Your task to perform on an android device: toggle notification dots Image 0: 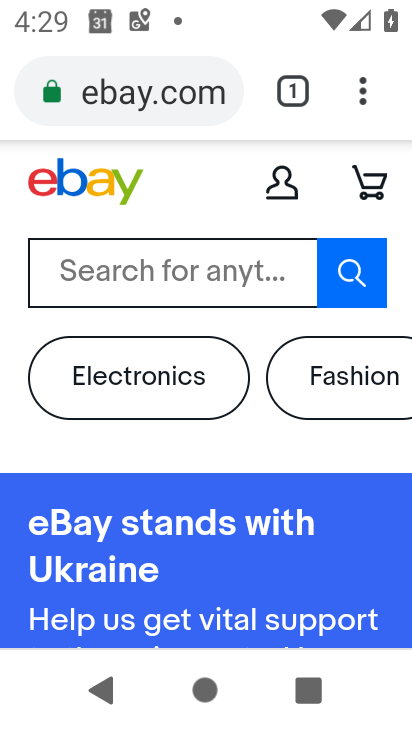
Step 0: press home button
Your task to perform on an android device: toggle notification dots Image 1: 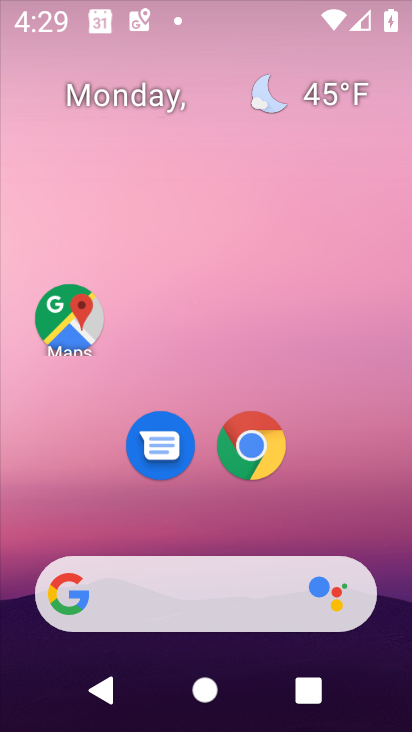
Step 1: drag from (192, 515) to (215, 75)
Your task to perform on an android device: toggle notification dots Image 2: 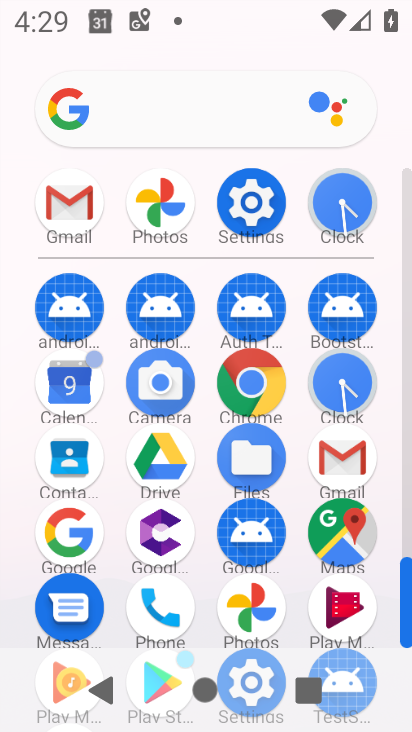
Step 2: click (246, 207)
Your task to perform on an android device: toggle notification dots Image 3: 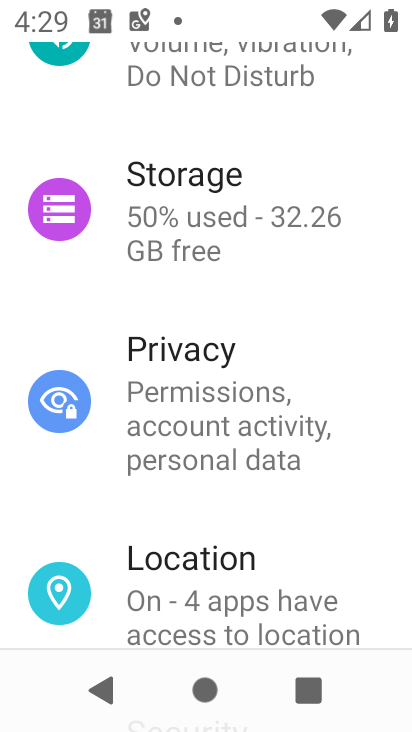
Step 3: drag from (185, 204) to (190, 575)
Your task to perform on an android device: toggle notification dots Image 4: 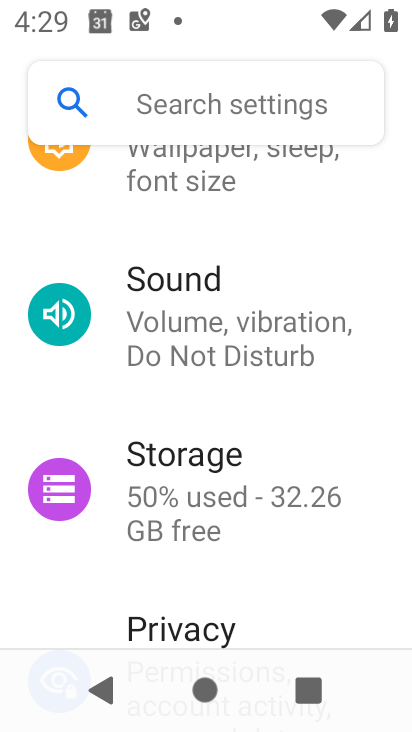
Step 4: drag from (210, 232) to (267, 551)
Your task to perform on an android device: toggle notification dots Image 5: 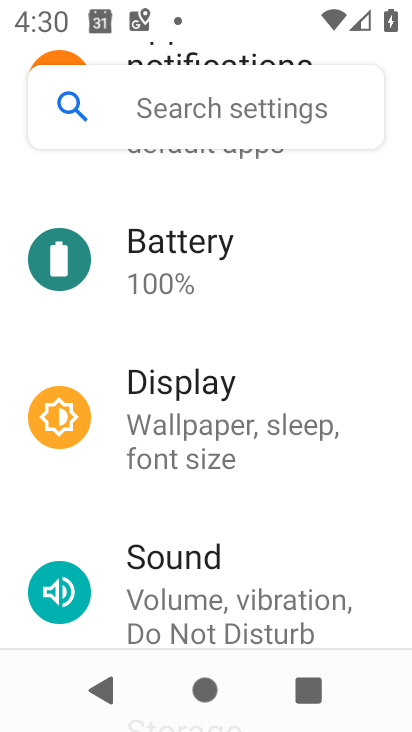
Step 5: drag from (286, 274) to (289, 599)
Your task to perform on an android device: toggle notification dots Image 6: 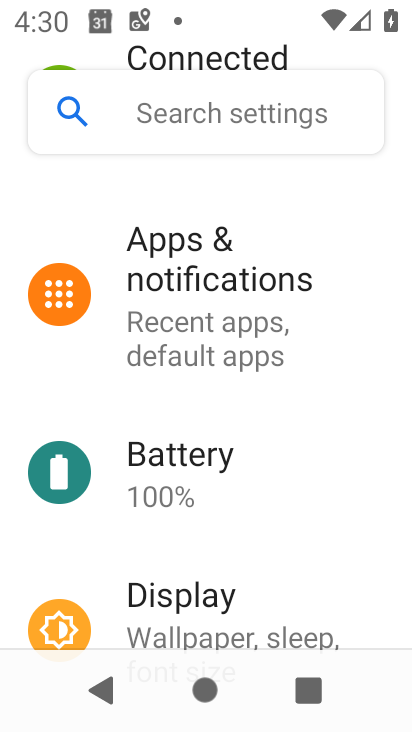
Step 6: click (248, 365)
Your task to perform on an android device: toggle notification dots Image 7: 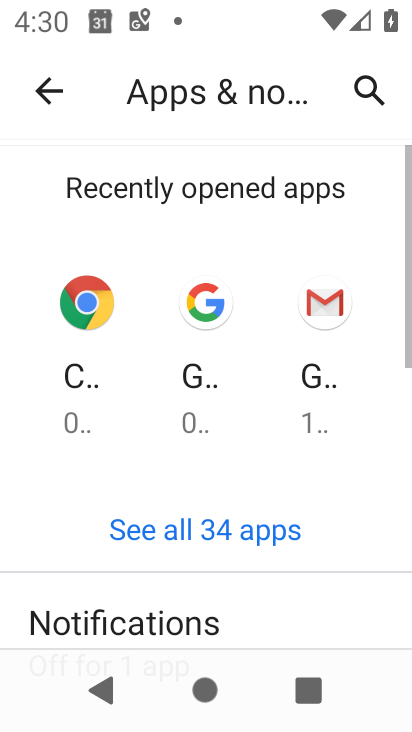
Step 7: drag from (234, 590) to (223, 180)
Your task to perform on an android device: toggle notification dots Image 8: 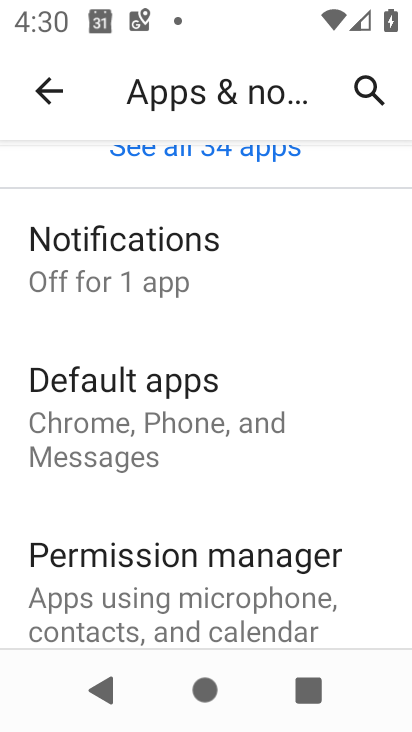
Step 8: click (127, 275)
Your task to perform on an android device: toggle notification dots Image 9: 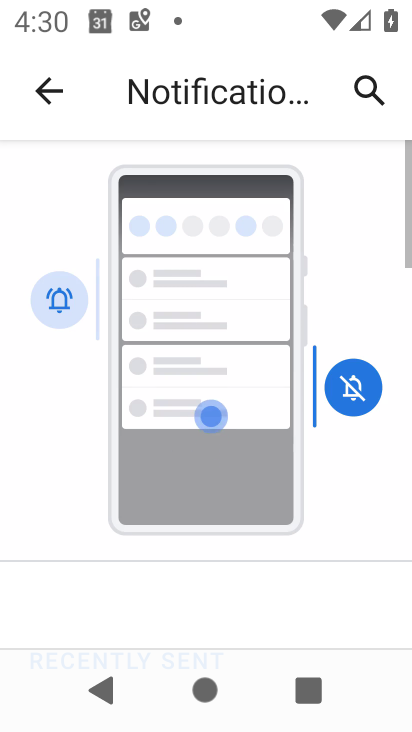
Step 9: drag from (144, 540) to (121, 118)
Your task to perform on an android device: toggle notification dots Image 10: 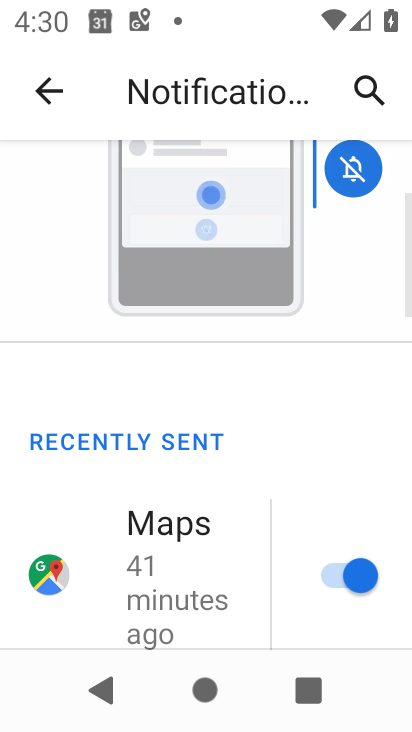
Step 10: drag from (148, 526) to (230, 29)
Your task to perform on an android device: toggle notification dots Image 11: 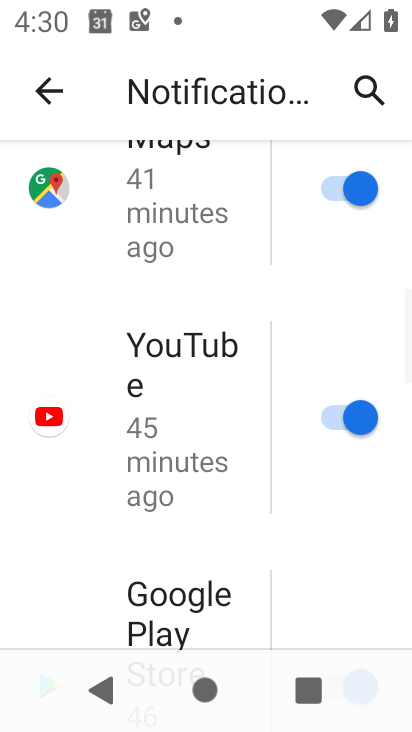
Step 11: drag from (190, 463) to (245, 40)
Your task to perform on an android device: toggle notification dots Image 12: 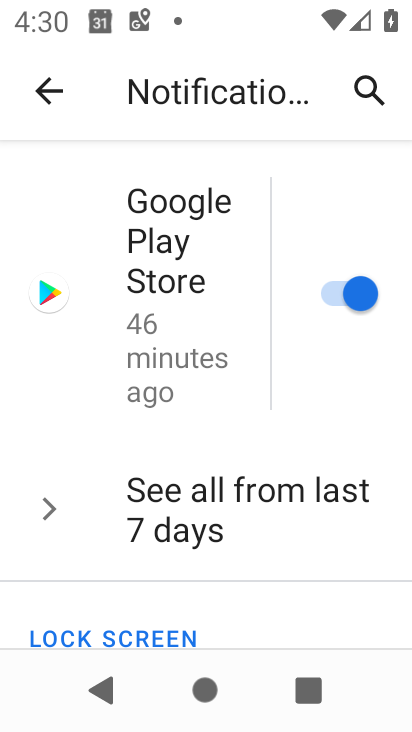
Step 12: drag from (133, 276) to (185, 8)
Your task to perform on an android device: toggle notification dots Image 13: 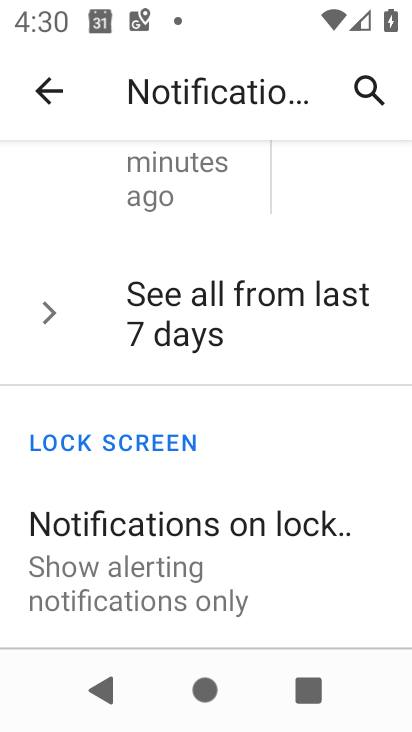
Step 13: drag from (213, 499) to (194, 102)
Your task to perform on an android device: toggle notification dots Image 14: 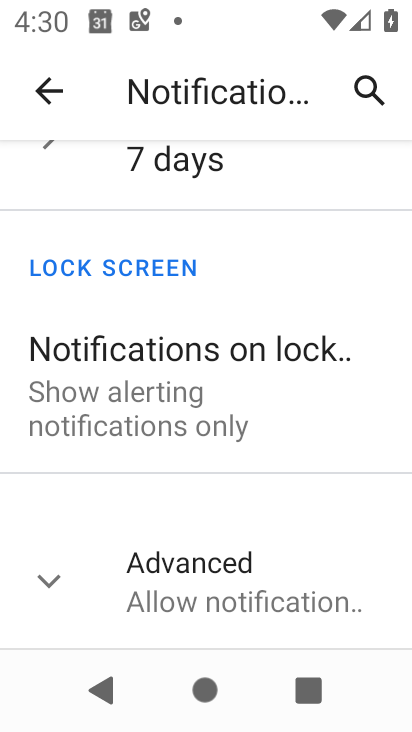
Step 14: click (181, 561)
Your task to perform on an android device: toggle notification dots Image 15: 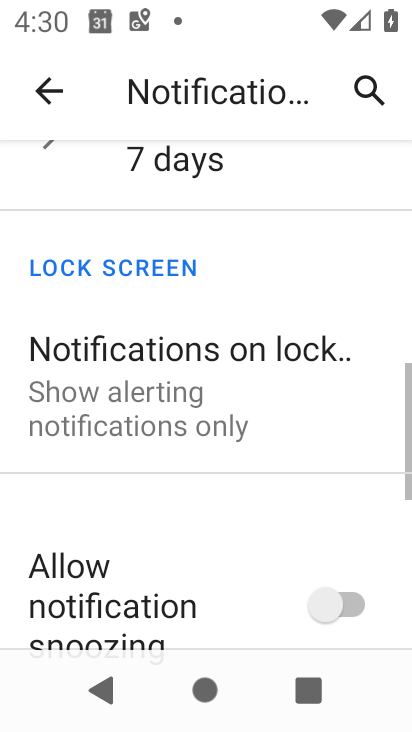
Step 15: drag from (195, 571) to (187, 78)
Your task to perform on an android device: toggle notification dots Image 16: 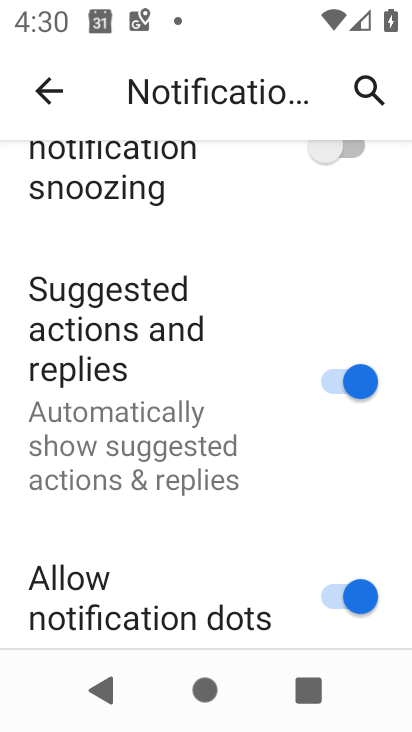
Step 16: drag from (250, 402) to (263, 163)
Your task to perform on an android device: toggle notification dots Image 17: 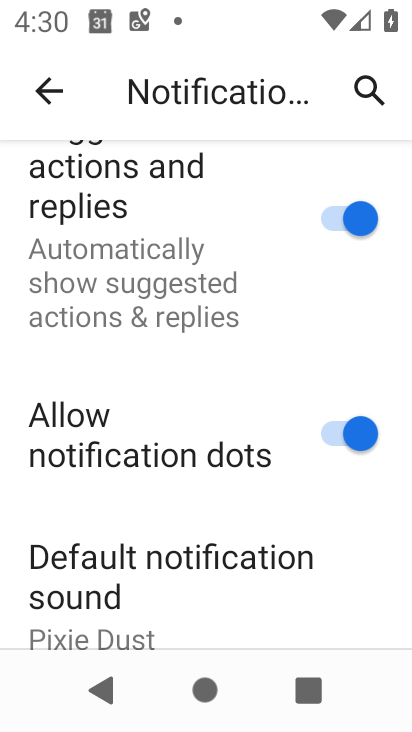
Step 17: click (354, 438)
Your task to perform on an android device: toggle notification dots Image 18: 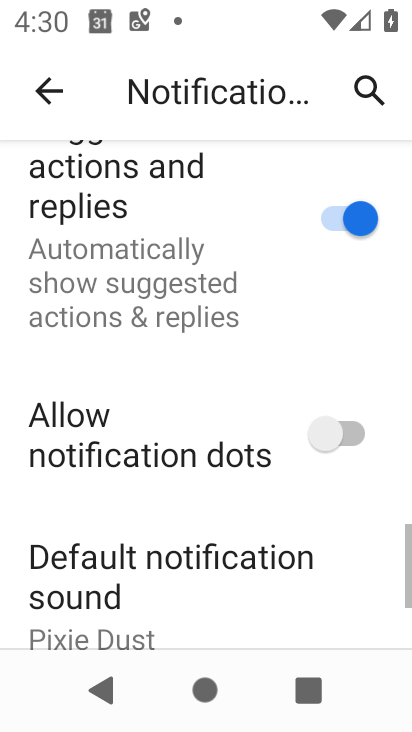
Step 18: task complete